Your task to perform on an android device: Open Amazon Image 0: 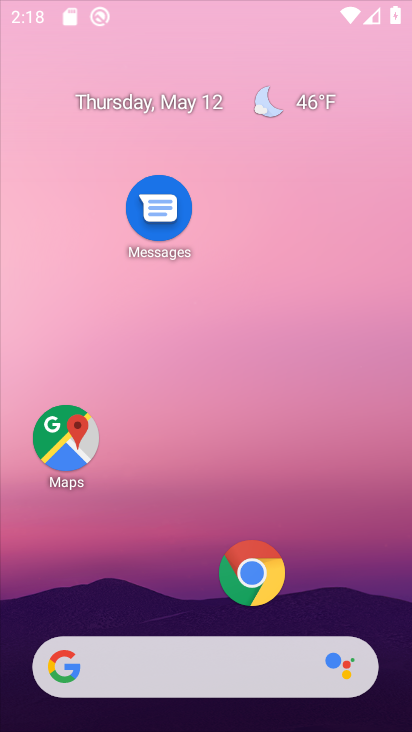
Step 0: click (266, 152)
Your task to perform on an android device: Open Amazon Image 1: 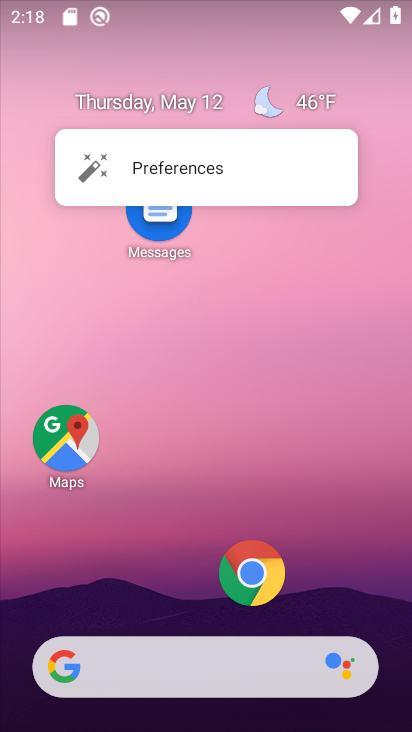
Step 1: drag from (192, 601) to (222, 163)
Your task to perform on an android device: Open Amazon Image 2: 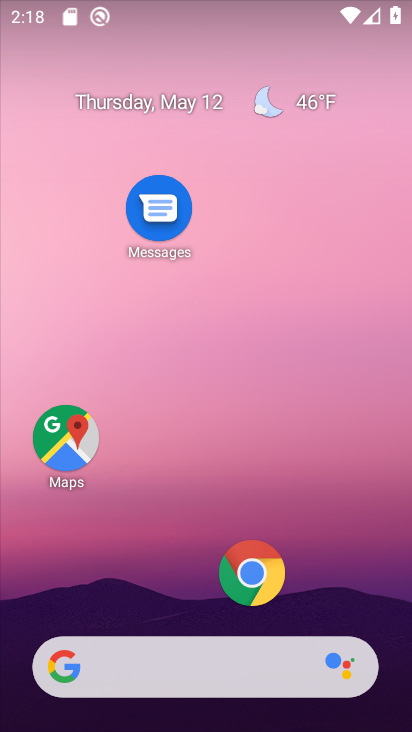
Step 2: drag from (187, 560) to (236, 132)
Your task to perform on an android device: Open Amazon Image 3: 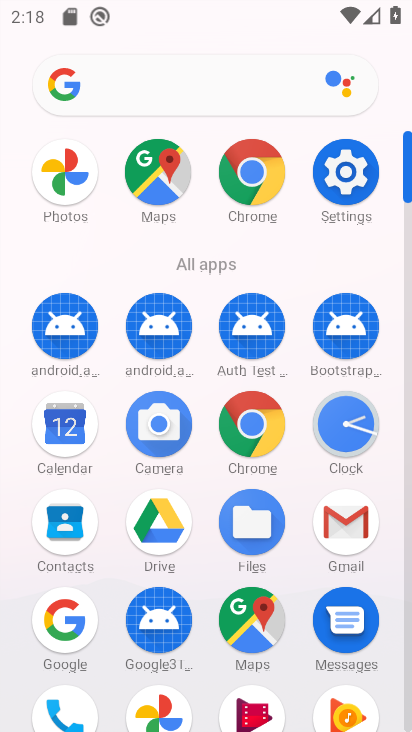
Step 3: click (244, 87)
Your task to perform on an android device: Open Amazon Image 4: 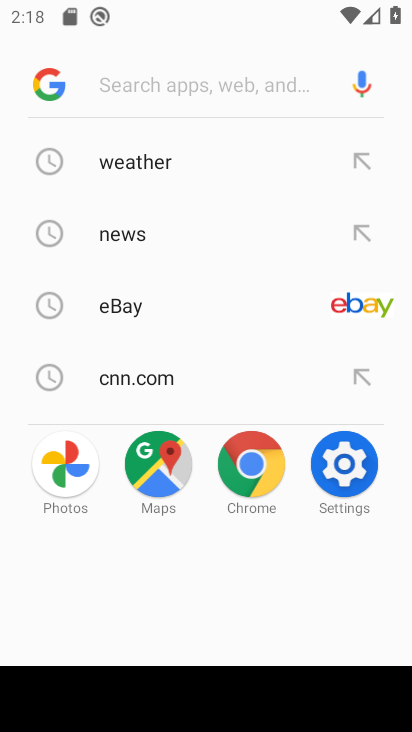
Step 4: type "amazon"
Your task to perform on an android device: Open Amazon Image 5: 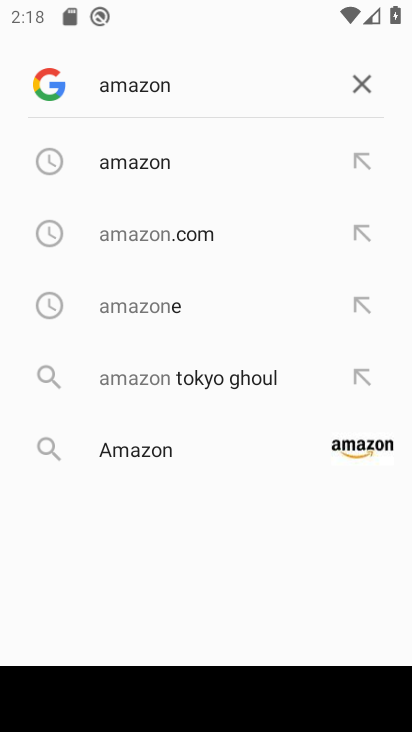
Step 5: click (192, 158)
Your task to perform on an android device: Open Amazon Image 6: 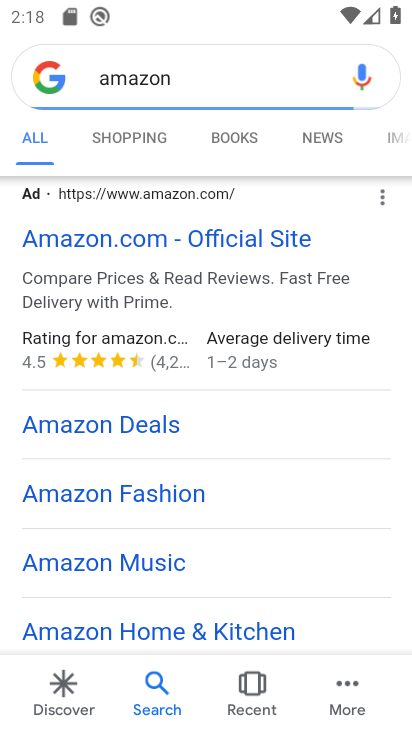
Step 6: task complete